Your task to perform on an android device: Add razer deathadder to the cart on newegg, then select checkout. Image 0: 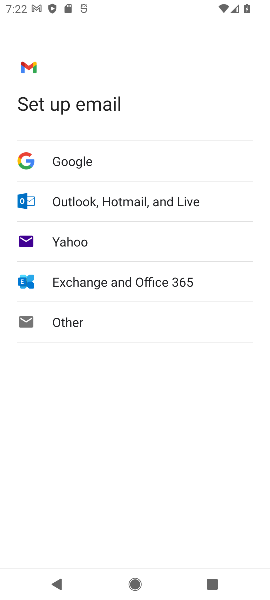
Step 0: press home button
Your task to perform on an android device: Add razer deathadder to the cart on newegg, then select checkout. Image 1: 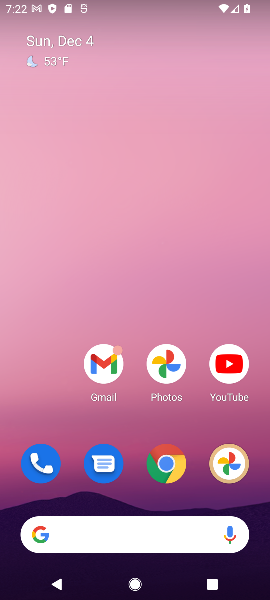
Step 1: click (114, 530)
Your task to perform on an android device: Add razer deathadder to the cart on newegg, then select checkout. Image 2: 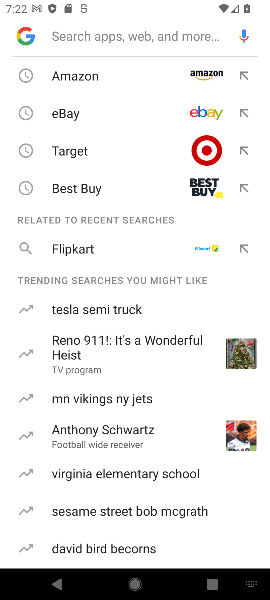
Step 2: type "newegg"
Your task to perform on an android device: Add razer deathadder to the cart on newegg, then select checkout. Image 3: 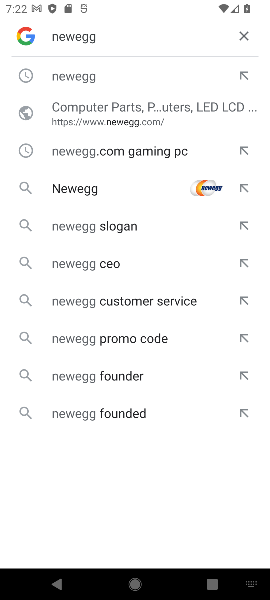
Step 3: click (96, 76)
Your task to perform on an android device: Add razer deathadder to the cart on newegg, then select checkout. Image 4: 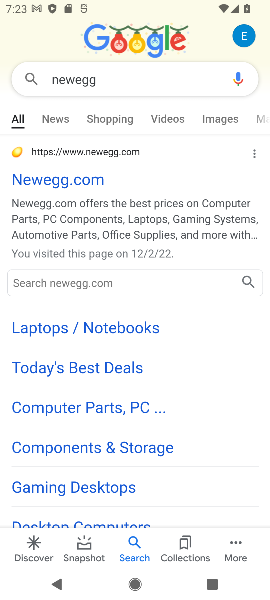
Step 4: click (68, 174)
Your task to perform on an android device: Add razer deathadder to the cart on newegg, then select checkout. Image 5: 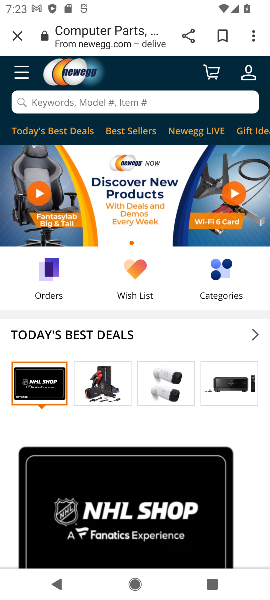
Step 5: click (129, 95)
Your task to perform on an android device: Add razer deathadder to the cart on newegg, then select checkout. Image 6: 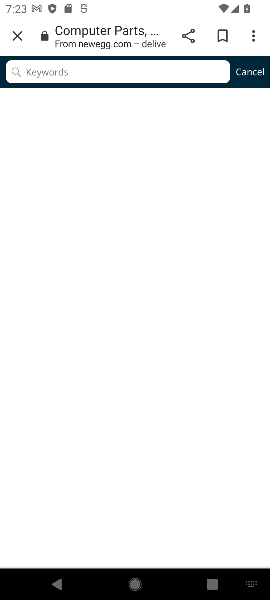
Step 6: type "razer deathadder"
Your task to perform on an android device: Add razer deathadder to the cart on newegg, then select checkout. Image 7: 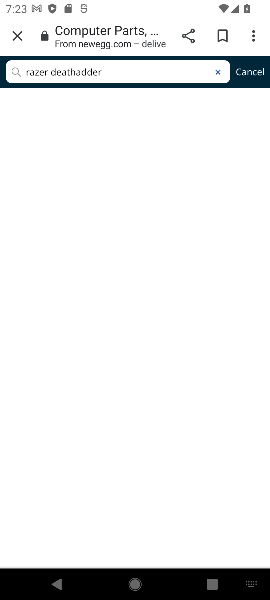
Step 7: task complete